Your task to perform on an android device: delete location history Image 0: 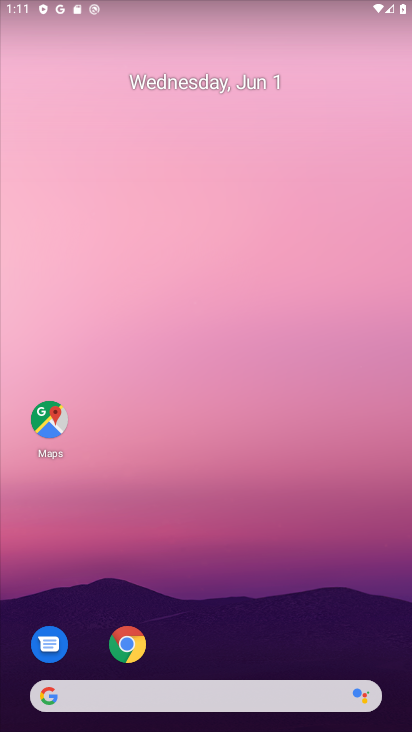
Step 0: press home button
Your task to perform on an android device: delete location history Image 1: 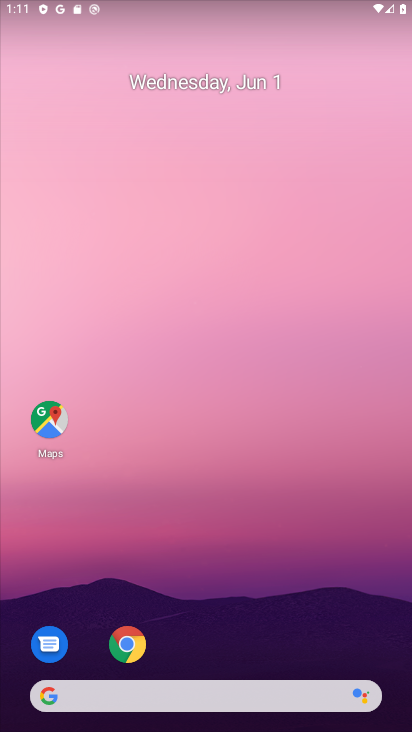
Step 1: click (44, 420)
Your task to perform on an android device: delete location history Image 2: 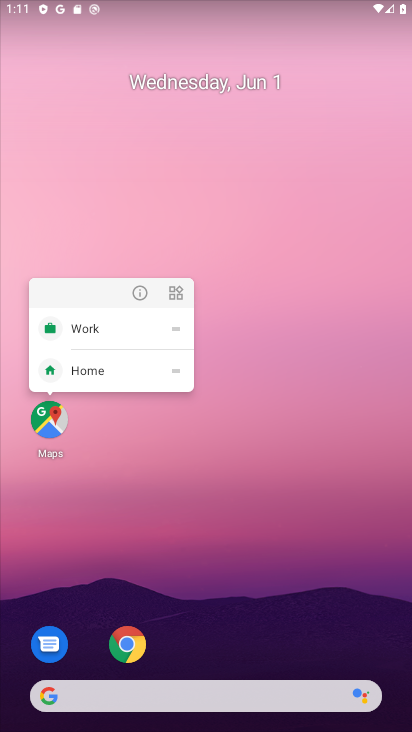
Step 2: click (44, 421)
Your task to perform on an android device: delete location history Image 3: 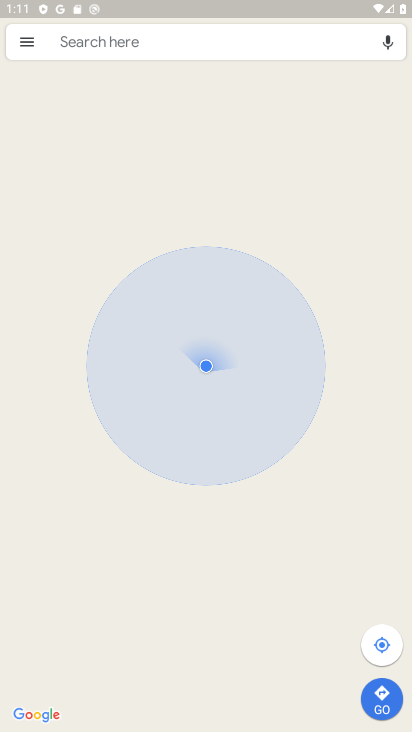
Step 3: click (25, 42)
Your task to perform on an android device: delete location history Image 4: 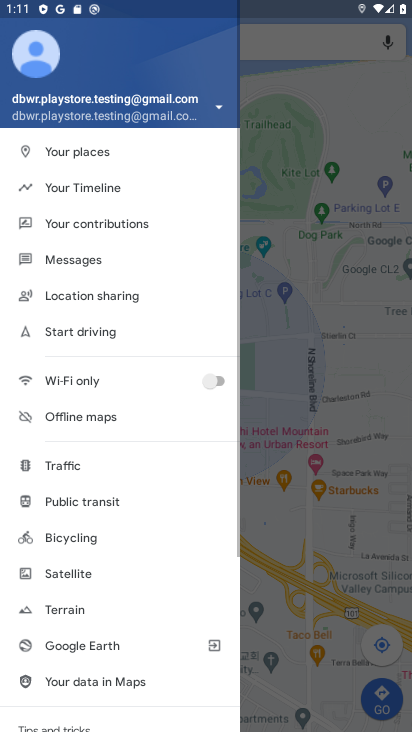
Step 4: click (80, 183)
Your task to perform on an android device: delete location history Image 5: 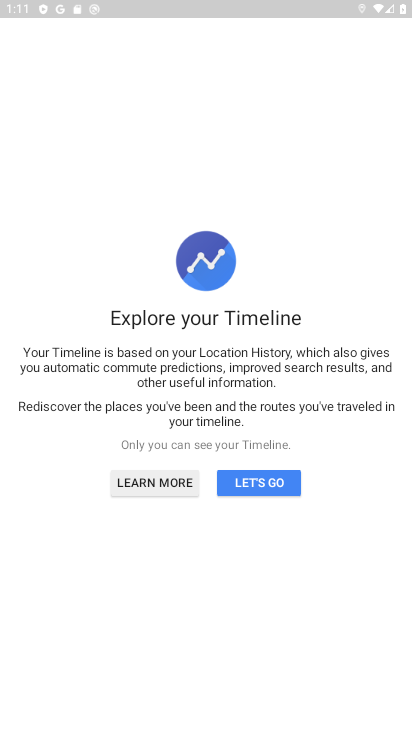
Step 5: click (244, 484)
Your task to perform on an android device: delete location history Image 6: 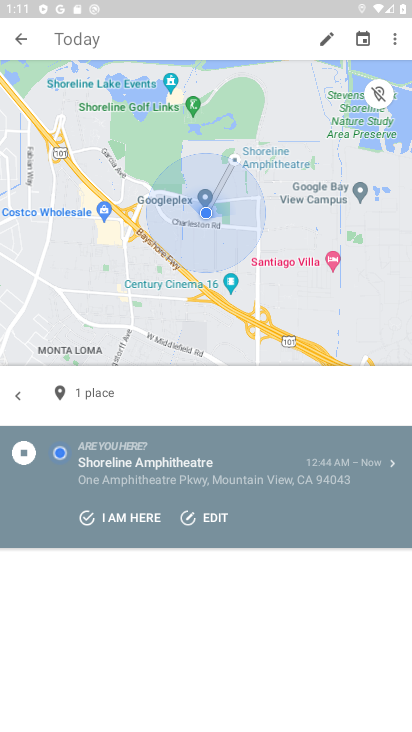
Step 6: click (394, 38)
Your task to perform on an android device: delete location history Image 7: 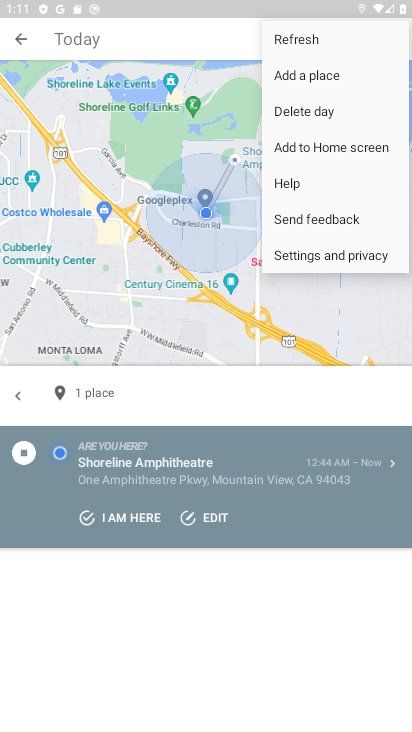
Step 7: click (290, 256)
Your task to perform on an android device: delete location history Image 8: 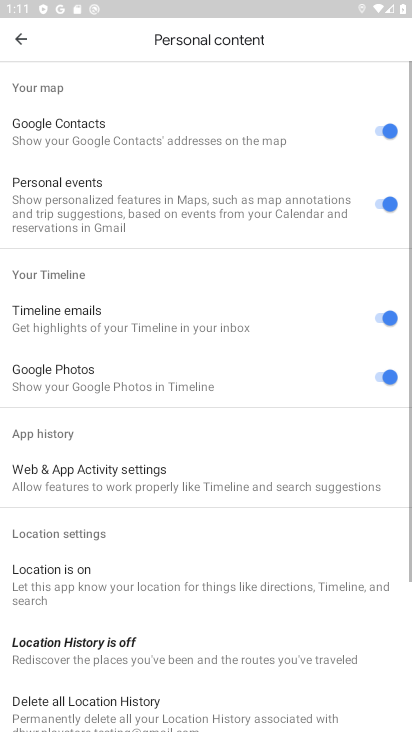
Step 8: drag from (155, 602) to (261, 331)
Your task to perform on an android device: delete location history Image 9: 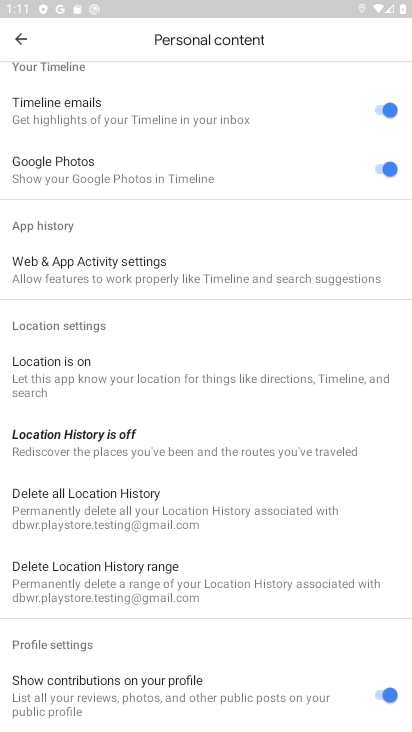
Step 9: click (98, 500)
Your task to perform on an android device: delete location history Image 10: 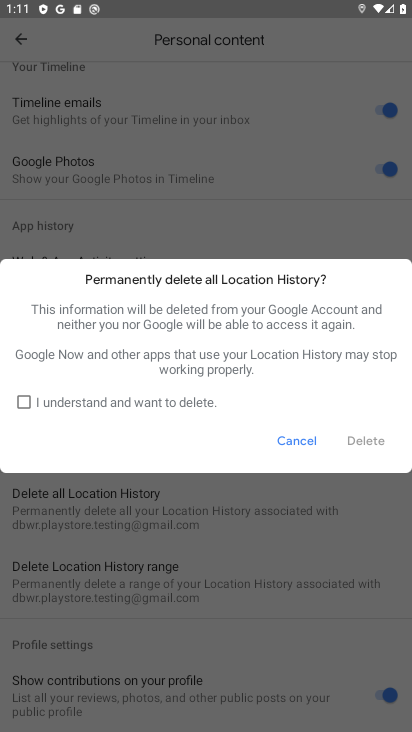
Step 10: click (25, 403)
Your task to perform on an android device: delete location history Image 11: 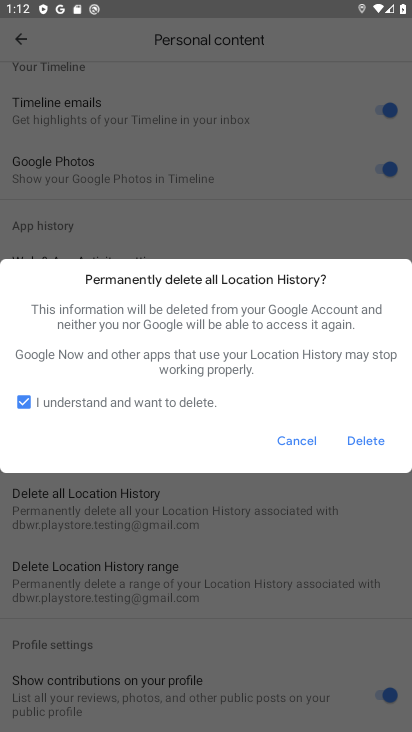
Step 11: click (370, 440)
Your task to perform on an android device: delete location history Image 12: 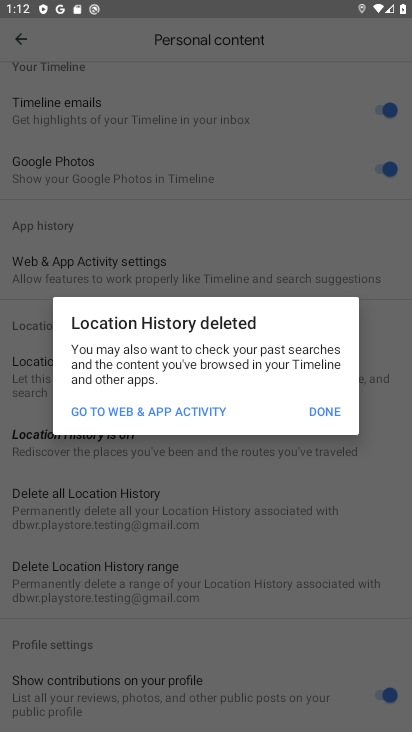
Step 12: click (336, 408)
Your task to perform on an android device: delete location history Image 13: 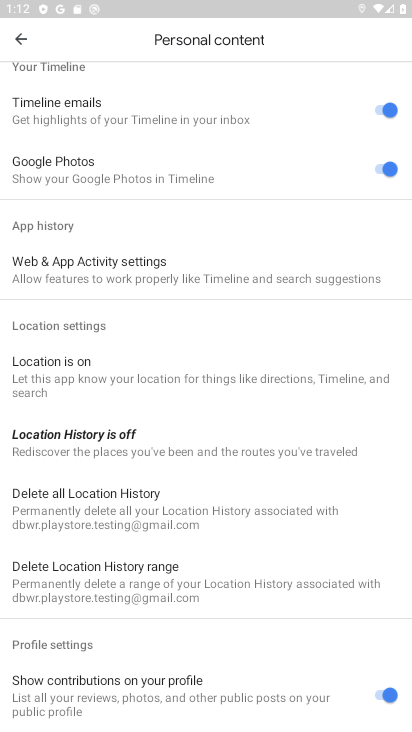
Step 13: task complete